Your task to perform on an android device: set an alarm Image 0: 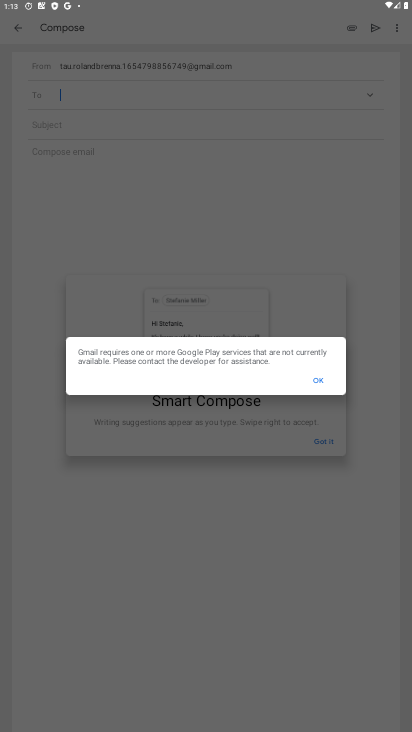
Step 0: press home button
Your task to perform on an android device: set an alarm Image 1: 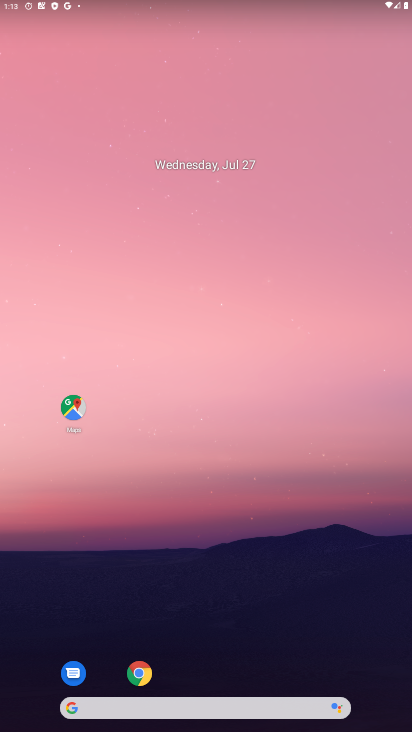
Step 1: drag from (229, 678) to (237, 2)
Your task to perform on an android device: set an alarm Image 2: 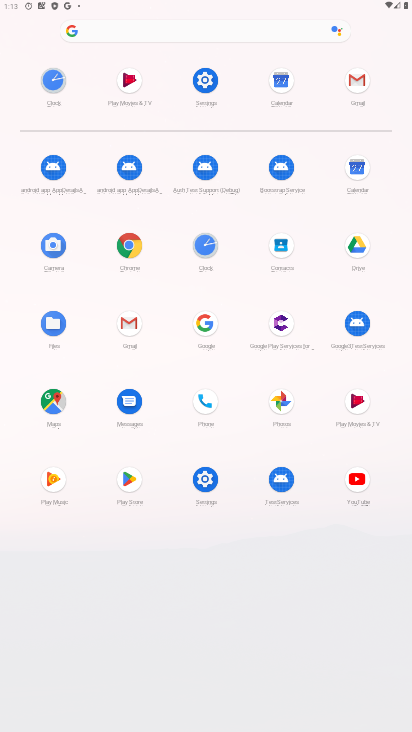
Step 2: click (206, 251)
Your task to perform on an android device: set an alarm Image 3: 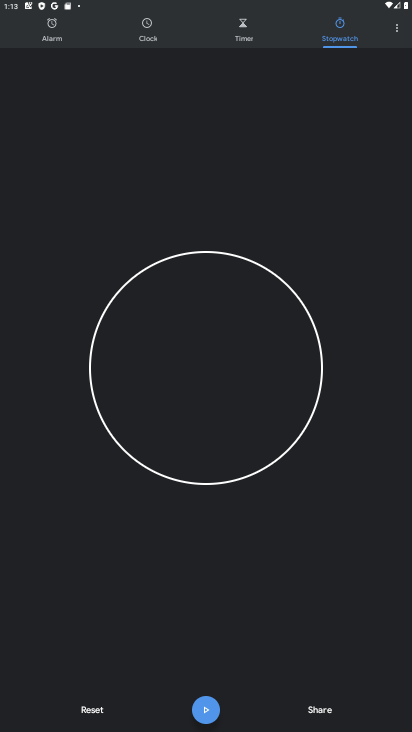
Step 3: click (47, 39)
Your task to perform on an android device: set an alarm Image 4: 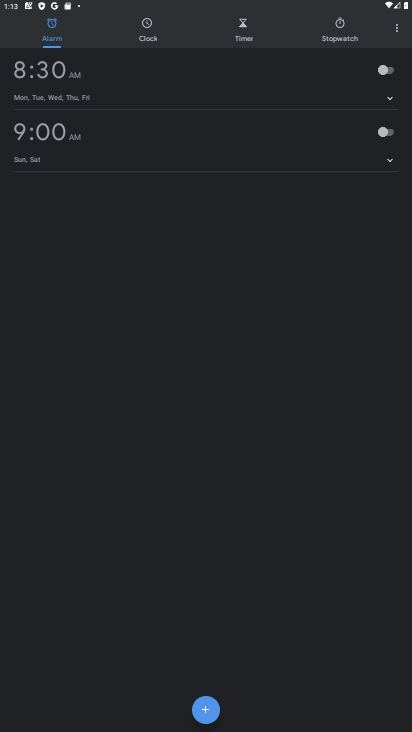
Step 4: click (207, 715)
Your task to perform on an android device: set an alarm Image 5: 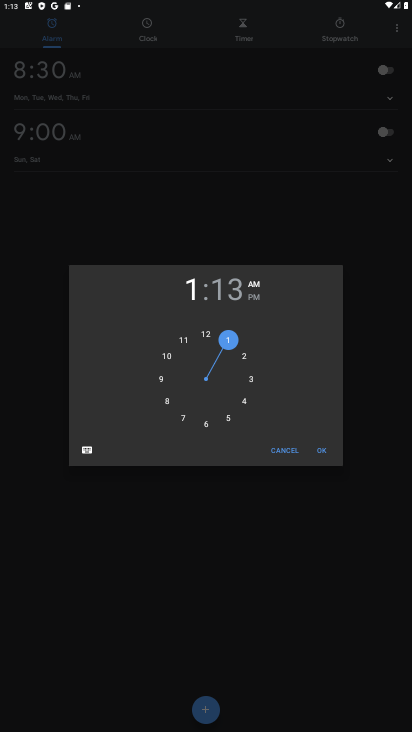
Step 5: click (228, 423)
Your task to perform on an android device: set an alarm Image 6: 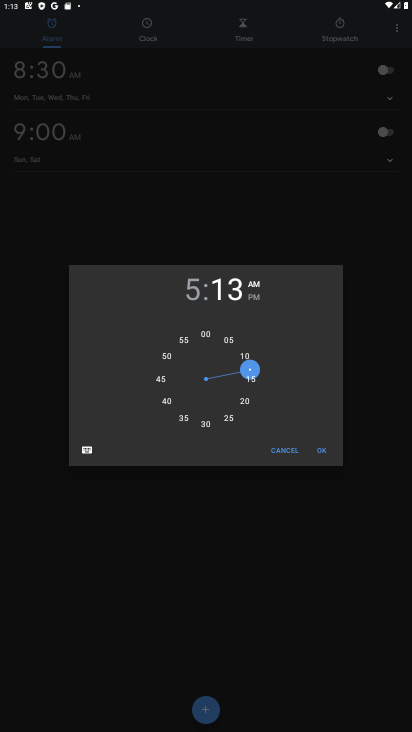
Step 6: click (202, 340)
Your task to perform on an android device: set an alarm Image 7: 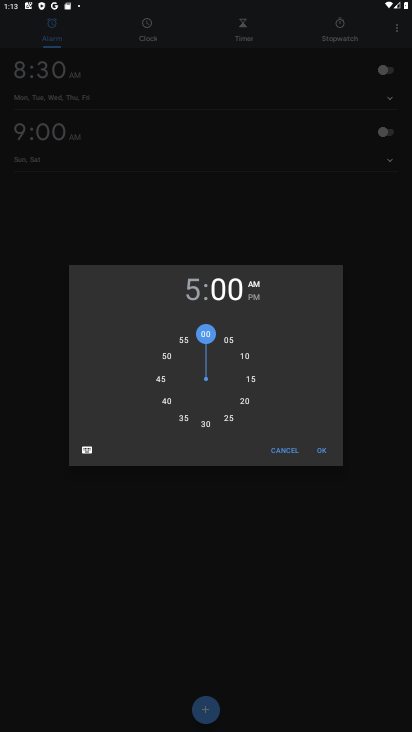
Step 7: click (327, 452)
Your task to perform on an android device: set an alarm Image 8: 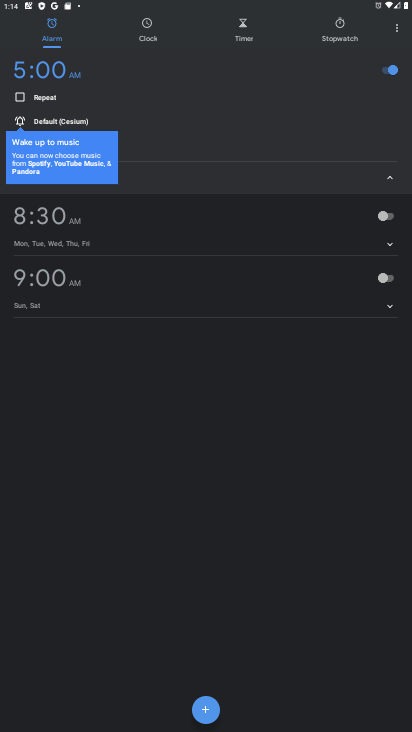
Step 8: task complete